Your task to perform on an android device: toggle priority inbox in the gmail app Image 0: 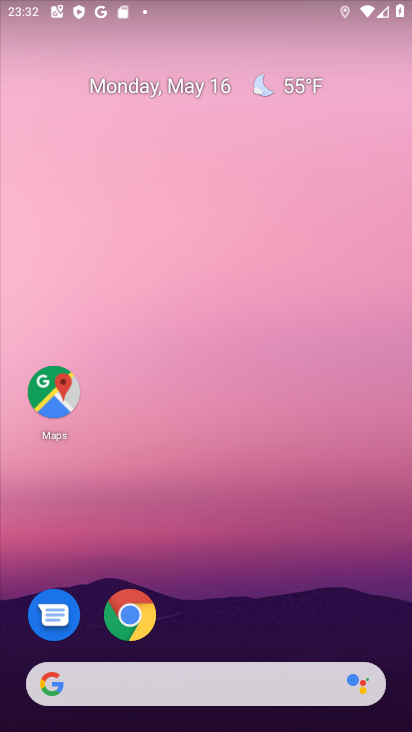
Step 0: drag from (219, 638) to (60, 21)
Your task to perform on an android device: toggle priority inbox in the gmail app Image 1: 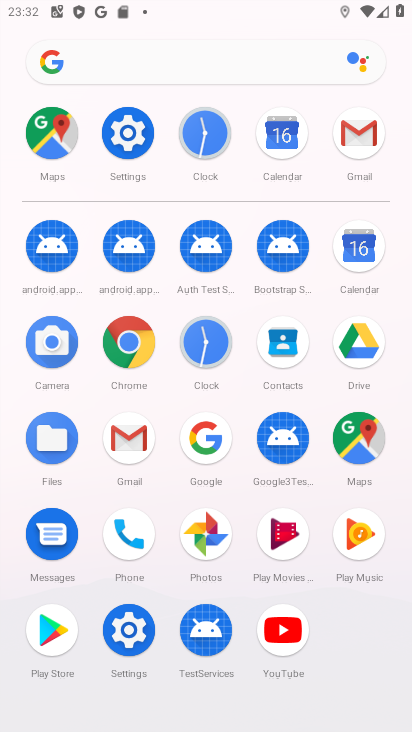
Step 1: click (119, 441)
Your task to perform on an android device: toggle priority inbox in the gmail app Image 2: 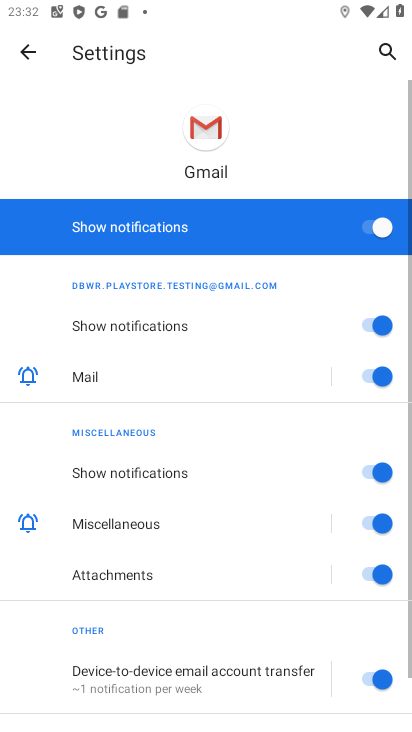
Step 2: click (27, 54)
Your task to perform on an android device: toggle priority inbox in the gmail app Image 3: 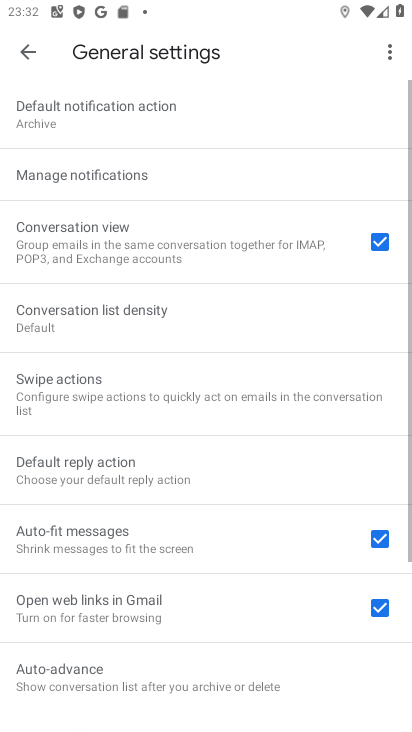
Step 3: click (28, 54)
Your task to perform on an android device: toggle priority inbox in the gmail app Image 4: 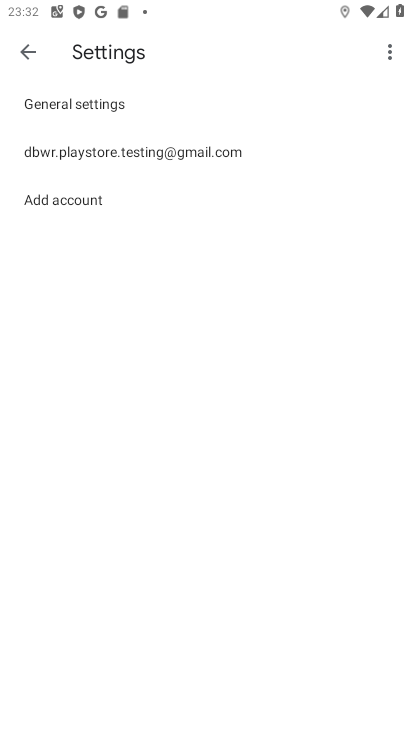
Step 4: click (87, 149)
Your task to perform on an android device: toggle priority inbox in the gmail app Image 5: 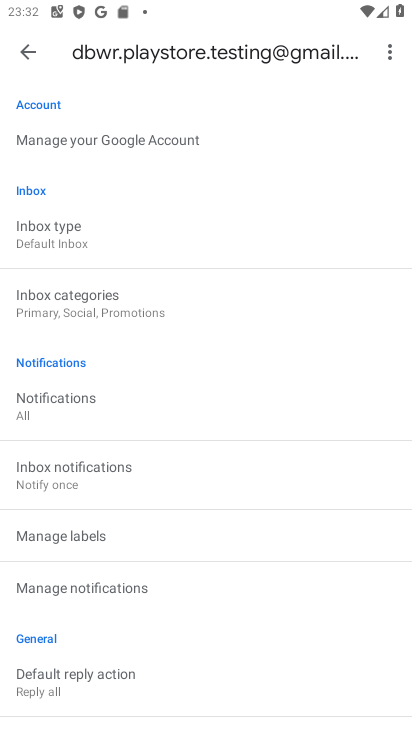
Step 5: click (58, 227)
Your task to perform on an android device: toggle priority inbox in the gmail app Image 6: 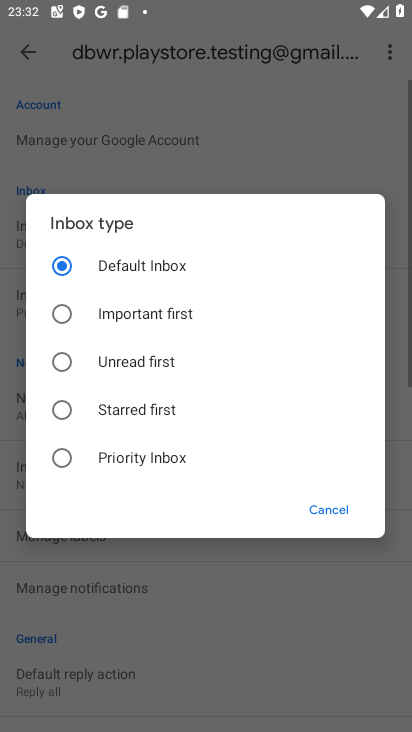
Step 6: click (77, 460)
Your task to perform on an android device: toggle priority inbox in the gmail app Image 7: 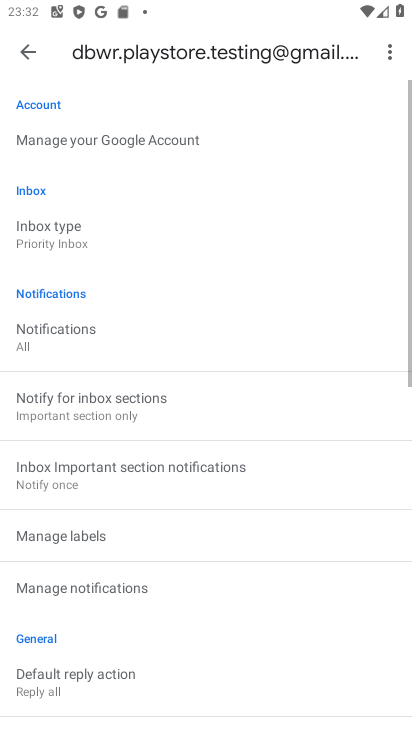
Step 7: task complete